Your task to perform on an android device: toggle translation in the chrome app Image 0: 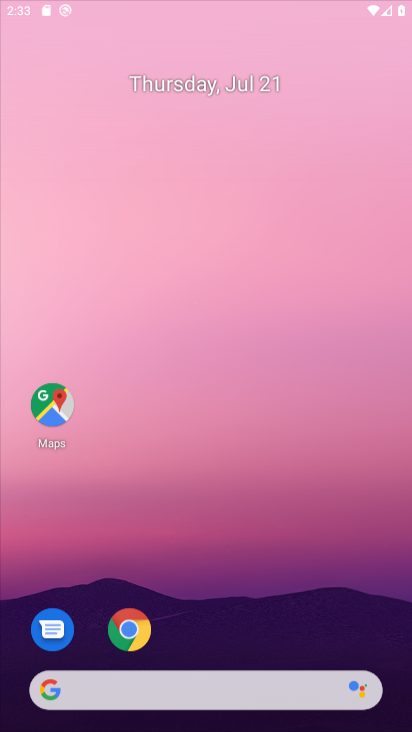
Step 0: drag from (193, 269) to (181, 196)
Your task to perform on an android device: toggle translation in the chrome app Image 1: 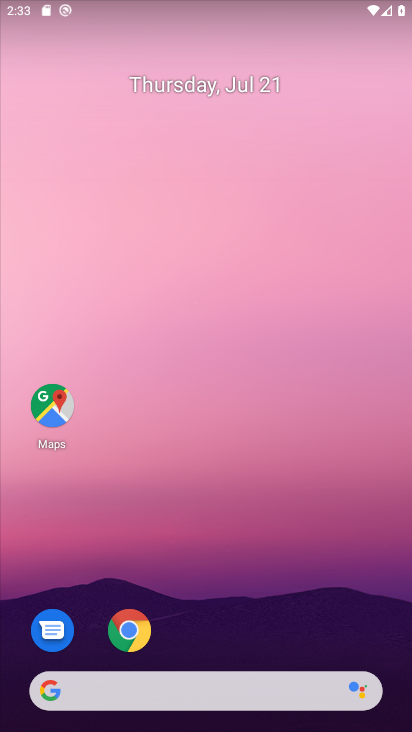
Step 1: drag from (241, 647) to (161, 76)
Your task to perform on an android device: toggle translation in the chrome app Image 2: 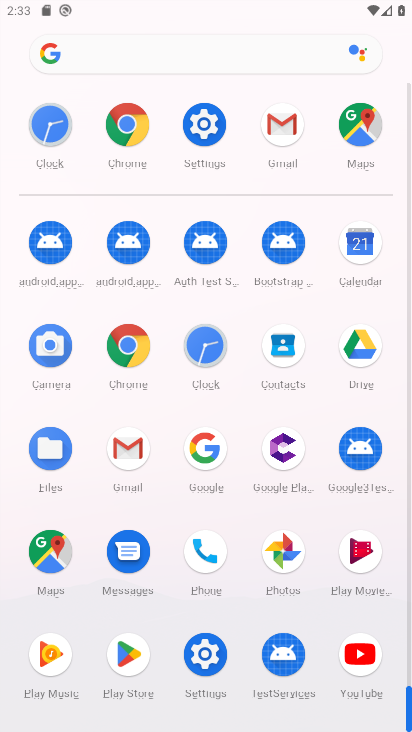
Step 2: click (136, 121)
Your task to perform on an android device: toggle translation in the chrome app Image 3: 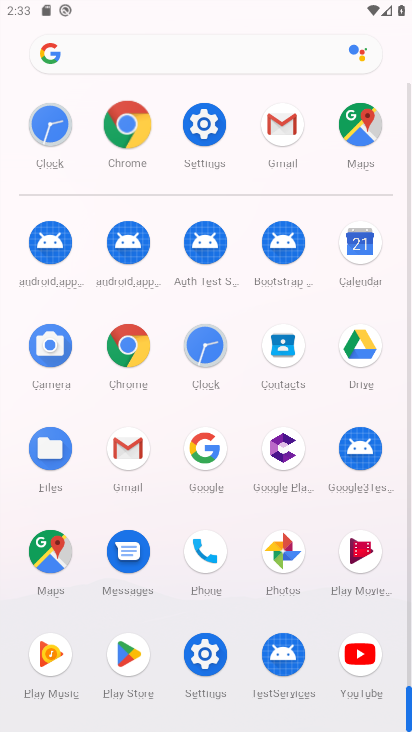
Step 3: click (133, 115)
Your task to perform on an android device: toggle translation in the chrome app Image 4: 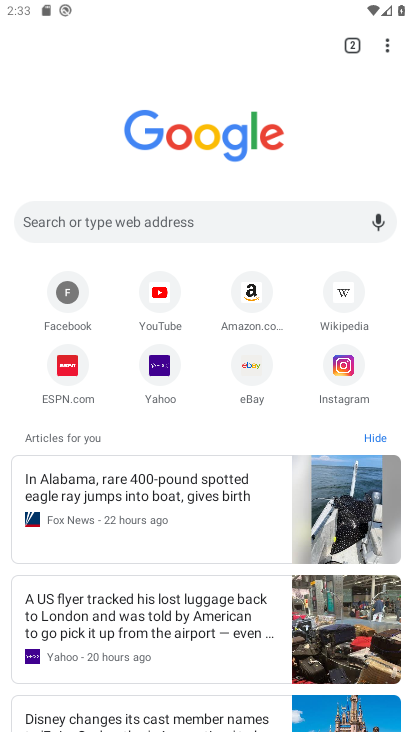
Step 4: drag from (383, 44) to (203, 397)
Your task to perform on an android device: toggle translation in the chrome app Image 5: 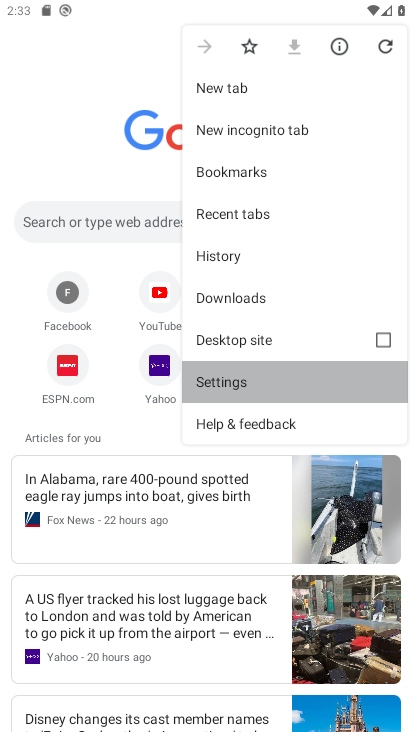
Step 5: click (203, 397)
Your task to perform on an android device: toggle translation in the chrome app Image 6: 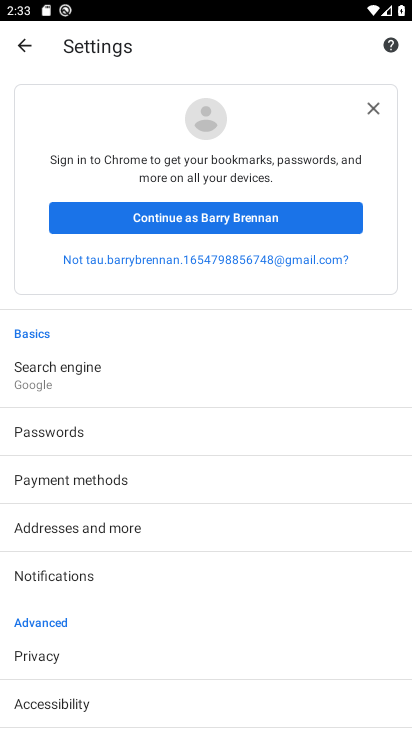
Step 6: drag from (107, 609) to (203, 249)
Your task to perform on an android device: toggle translation in the chrome app Image 7: 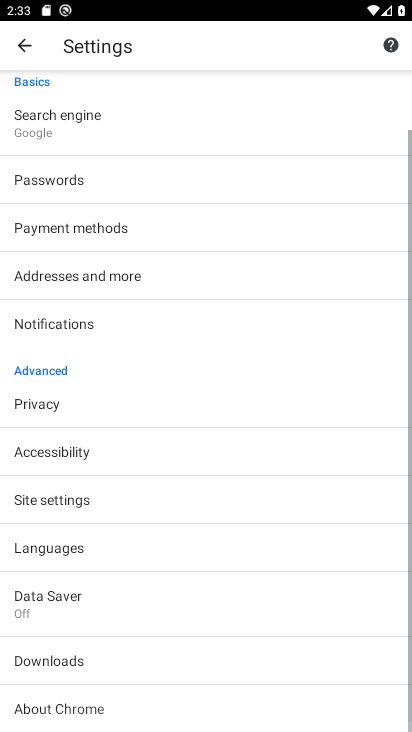
Step 7: drag from (186, 523) to (198, 385)
Your task to perform on an android device: toggle translation in the chrome app Image 8: 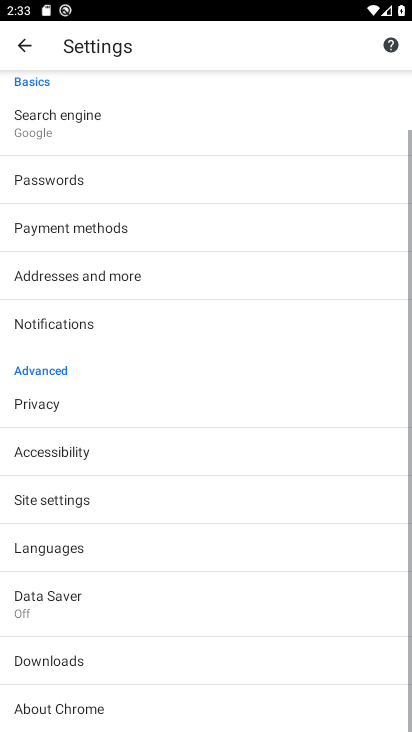
Step 8: drag from (171, 526) to (171, 191)
Your task to perform on an android device: toggle translation in the chrome app Image 9: 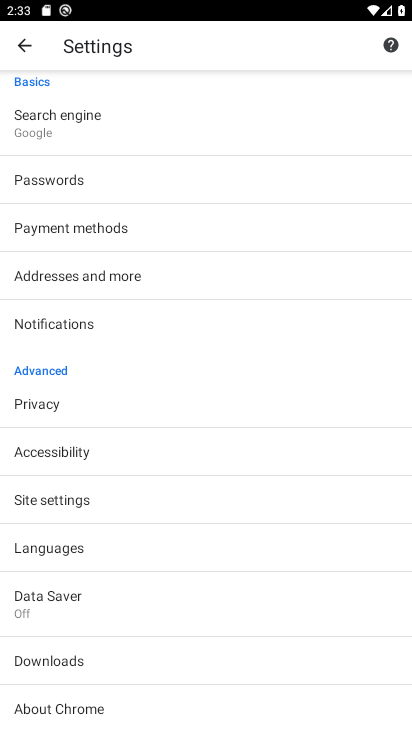
Step 9: click (40, 545)
Your task to perform on an android device: toggle translation in the chrome app Image 10: 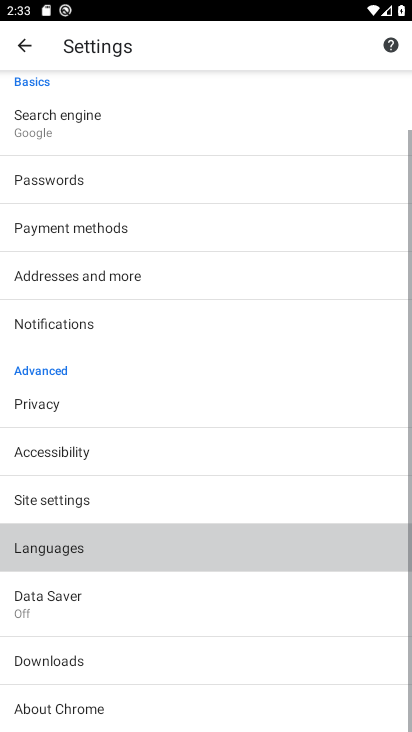
Step 10: click (41, 551)
Your task to perform on an android device: toggle translation in the chrome app Image 11: 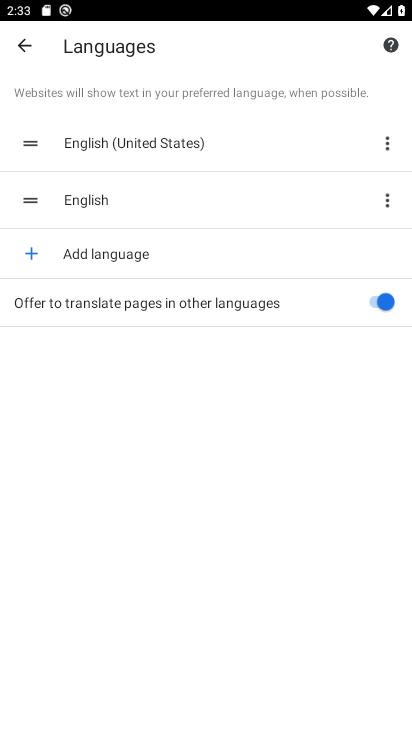
Step 11: click (64, 547)
Your task to perform on an android device: toggle translation in the chrome app Image 12: 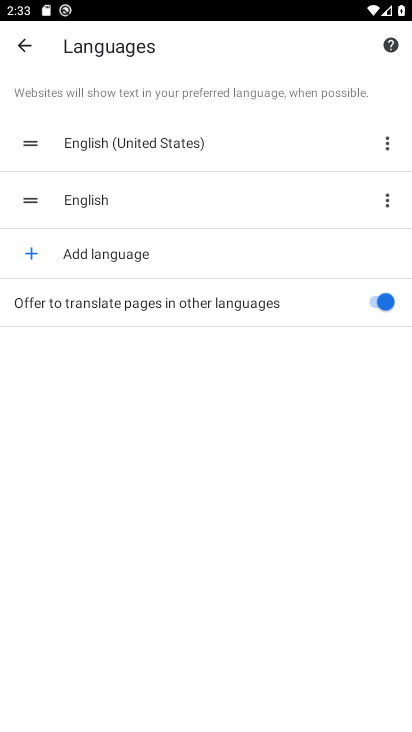
Step 12: click (379, 298)
Your task to perform on an android device: toggle translation in the chrome app Image 13: 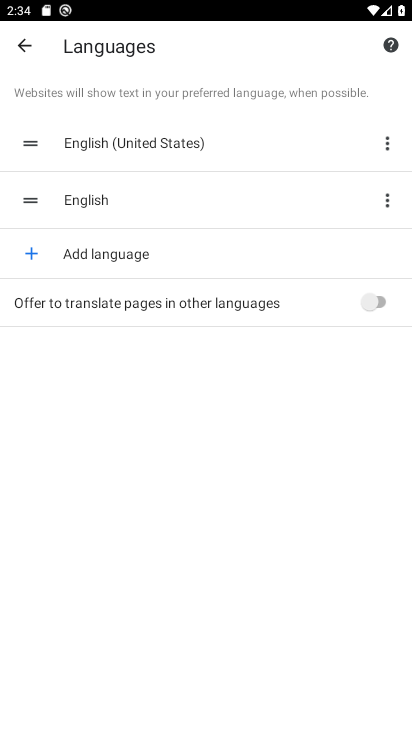
Step 13: task complete